Your task to perform on an android device: open the mobile data screen to see how much data has been used Image 0: 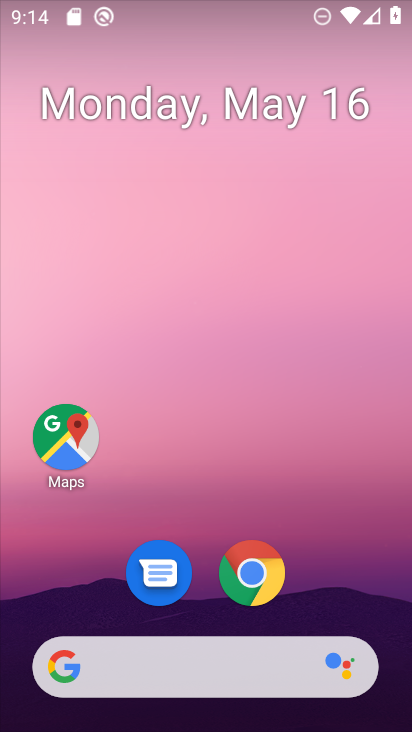
Step 0: drag from (366, 593) to (375, 147)
Your task to perform on an android device: open the mobile data screen to see how much data has been used Image 1: 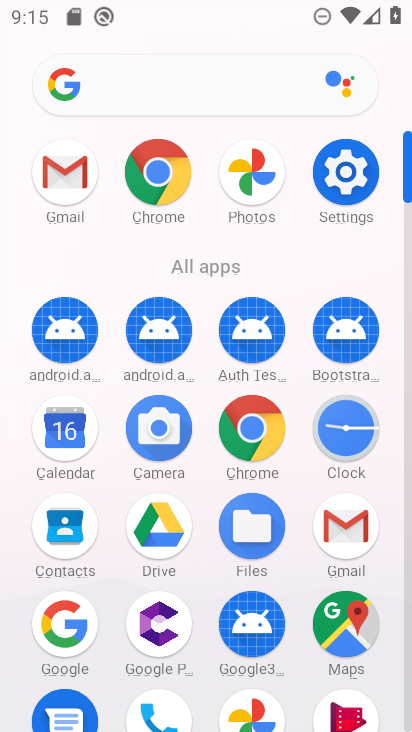
Step 1: click (343, 182)
Your task to perform on an android device: open the mobile data screen to see how much data has been used Image 2: 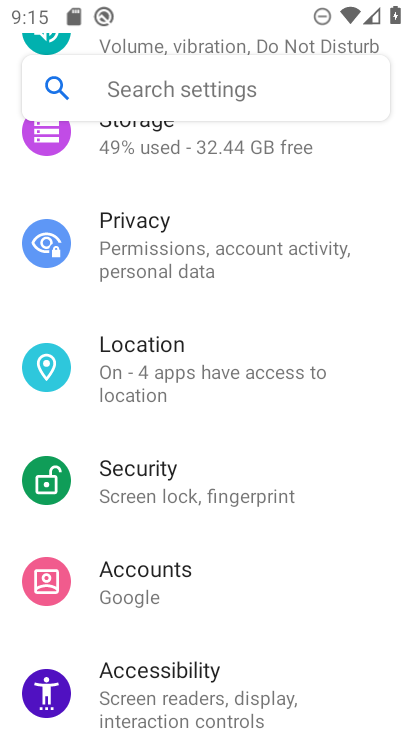
Step 2: drag from (279, 174) to (203, 602)
Your task to perform on an android device: open the mobile data screen to see how much data has been used Image 3: 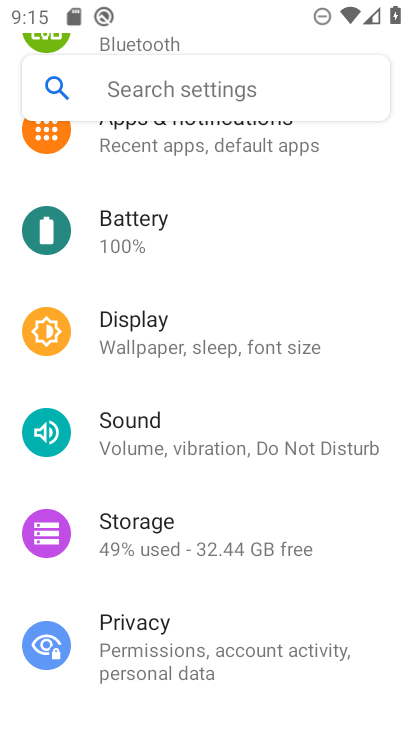
Step 3: drag from (248, 195) to (220, 679)
Your task to perform on an android device: open the mobile data screen to see how much data has been used Image 4: 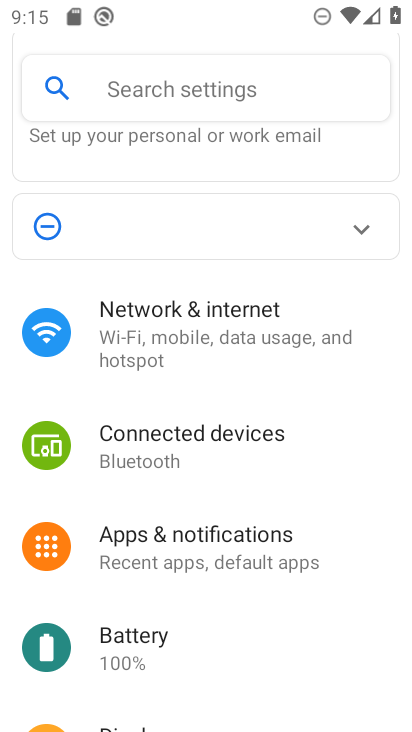
Step 4: click (228, 306)
Your task to perform on an android device: open the mobile data screen to see how much data has been used Image 5: 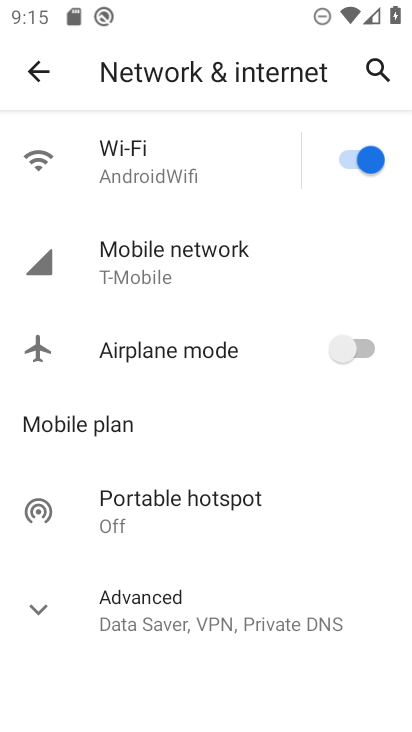
Step 5: click (220, 278)
Your task to perform on an android device: open the mobile data screen to see how much data has been used Image 6: 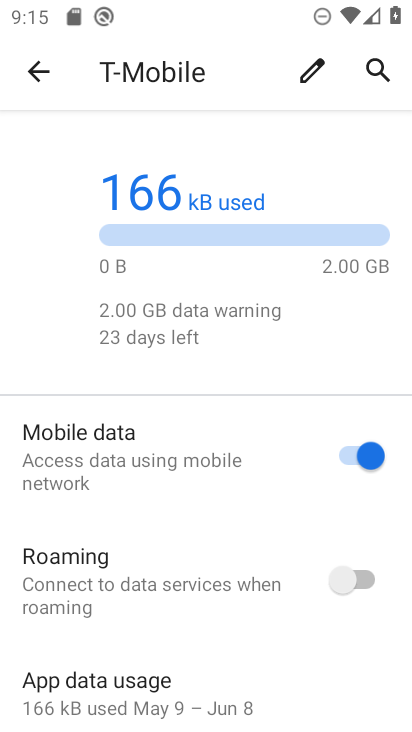
Step 6: task complete